Your task to perform on an android device: search for starred emails in the gmail app Image 0: 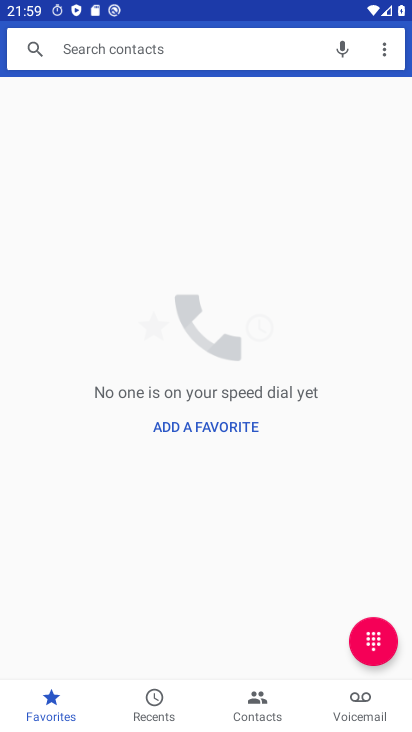
Step 0: press back button
Your task to perform on an android device: search for starred emails in the gmail app Image 1: 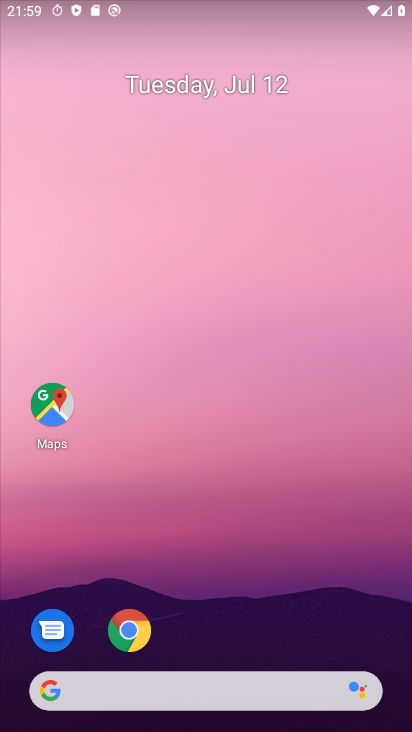
Step 1: drag from (212, 641) to (273, 91)
Your task to perform on an android device: search for starred emails in the gmail app Image 2: 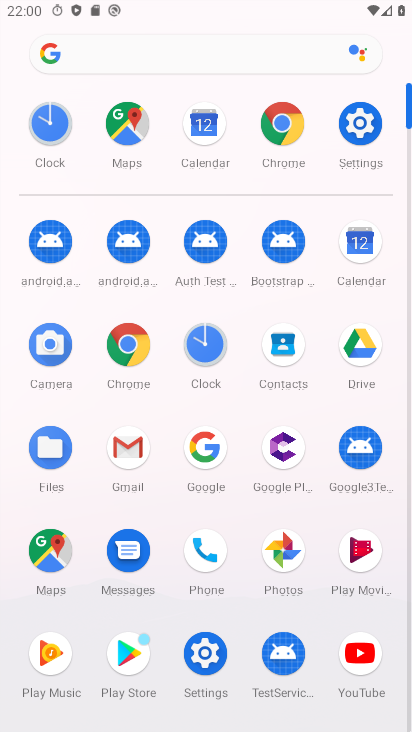
Step 2: click (134, 446)
Your task to perform on an android device: search for starred emails in the gmail app Image 3: 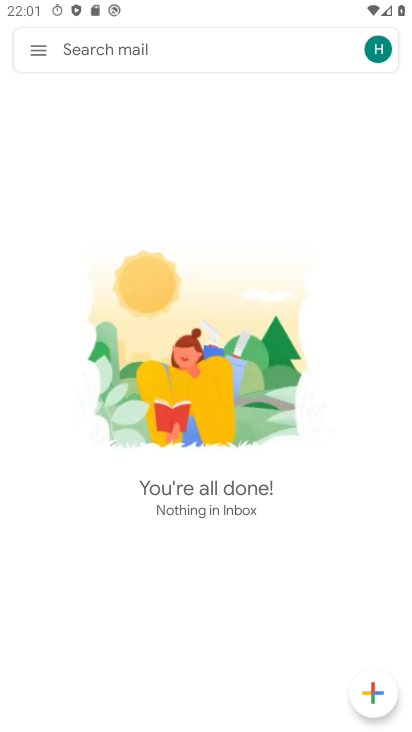
Step 3: click (35, 50)
Your task to perform on an android device: search for starred emails in the gmail app Image 4: 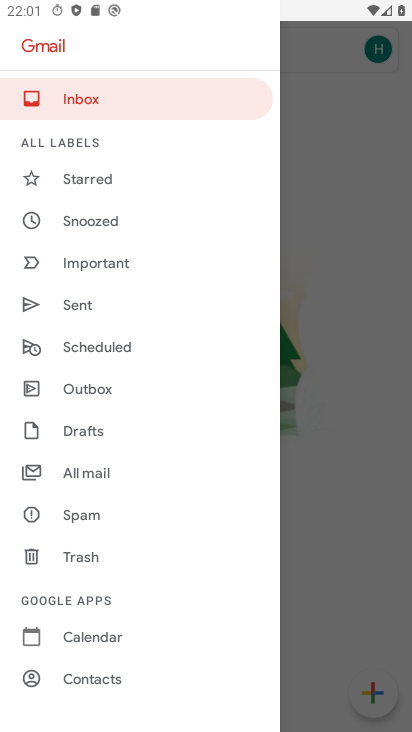
Step 4: click (97, 177)
Your task to perform on an android device: search for starred emails in the gmail app Image 5: 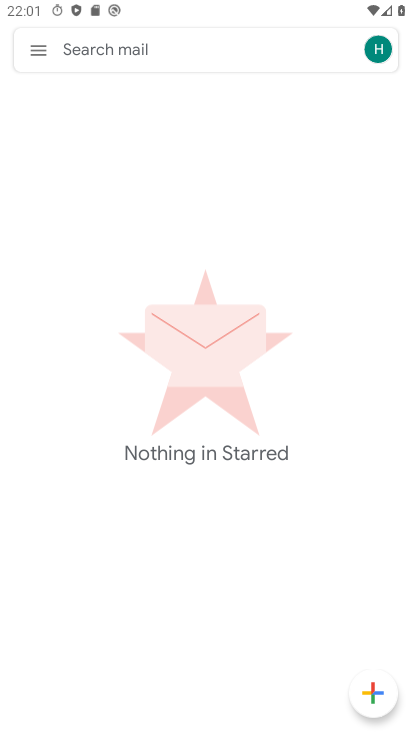
Step 5: task complete